Your task to perform on an android device: What's on my calendar today? Image 0: 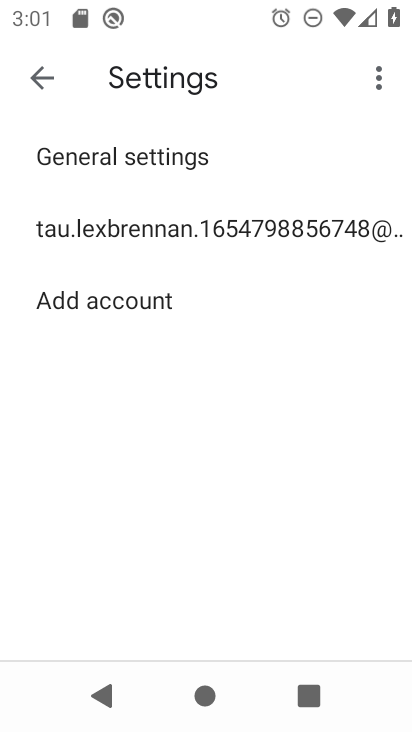
Step 0: click (47, 86)
Your task to perform on an android device: What's on my calendar today? Image 1: 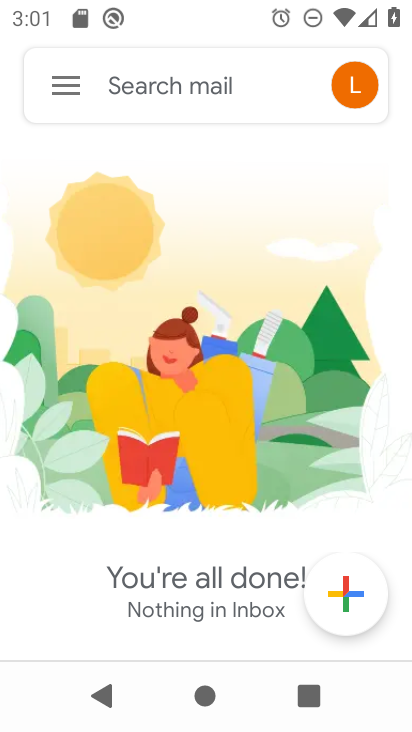
Step 1: click (68, 95)
Your task to perform on an android device: What's on my calendar today? Image 2: 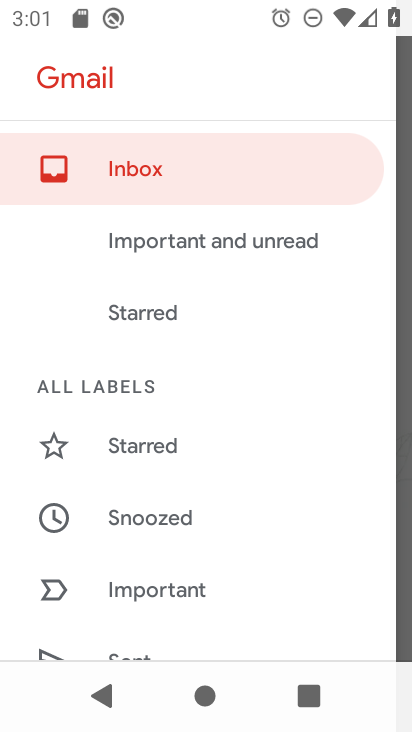
Step 2: press home button
Your task to perform on an android device: What's on my calendar today? Image 3: 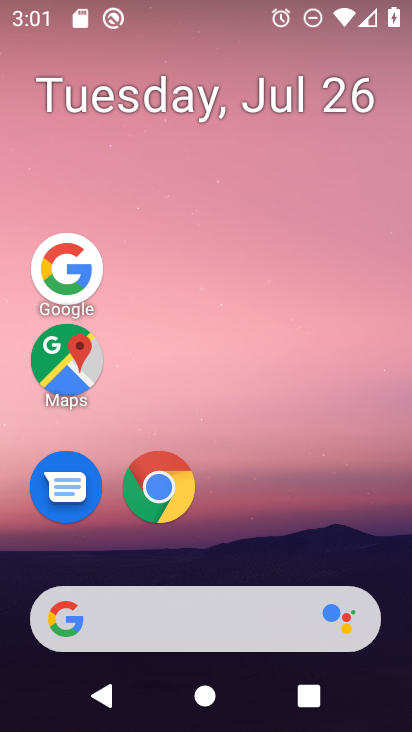
Step 3: drag from (237, 657) to (194, 214)
Your task to perform on an android device: What's on my calendar today? Image 4: 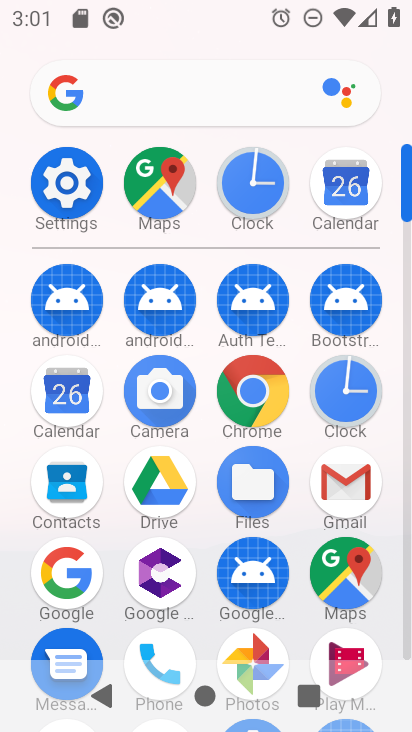
Step 4: click (76, 402)
Your task to perform on an android device: What's on my calendar today? Image 5: 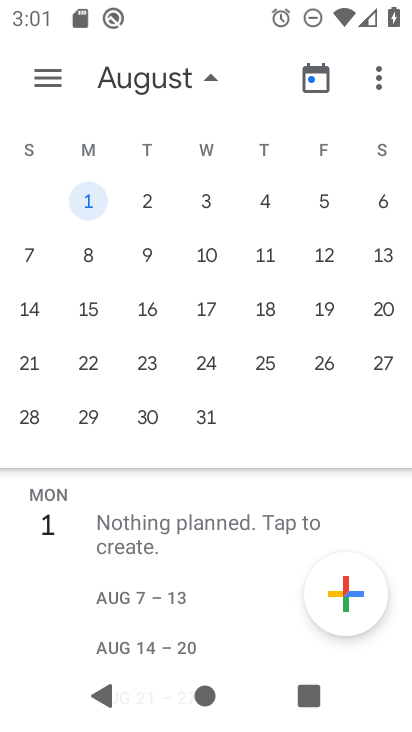
Step 5: drag from (99, 287) to (410, 240)
Your task to perform on an android device: What's on my calendar today? Image 6: 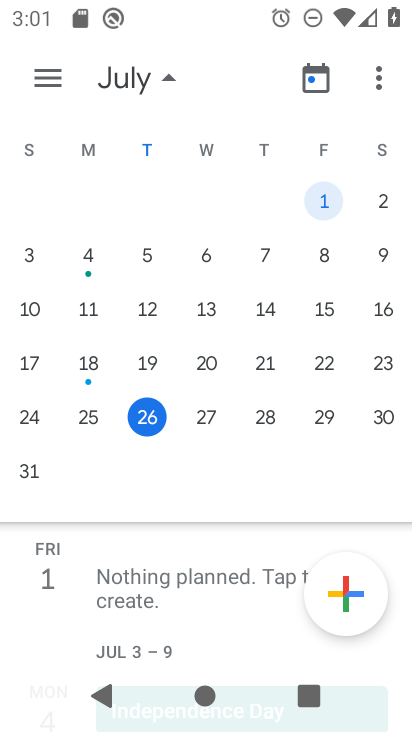
Step 6: click (150, 425)
Your task to perform on an android device: What's on my calendar today? Image 7: 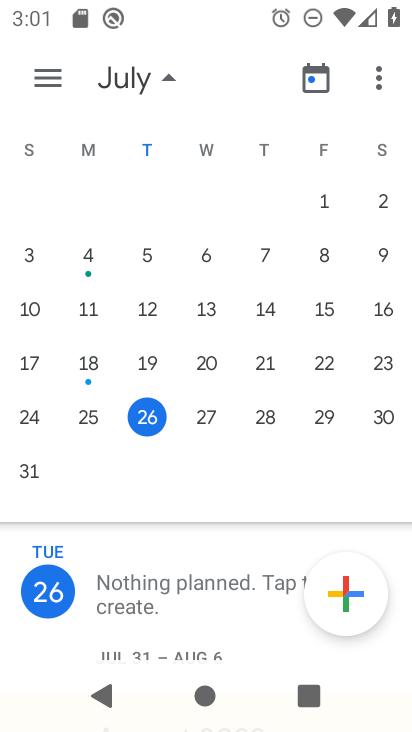
Step 7: task complete